Your task to perform on an android device: Go to internet settings Image 0: 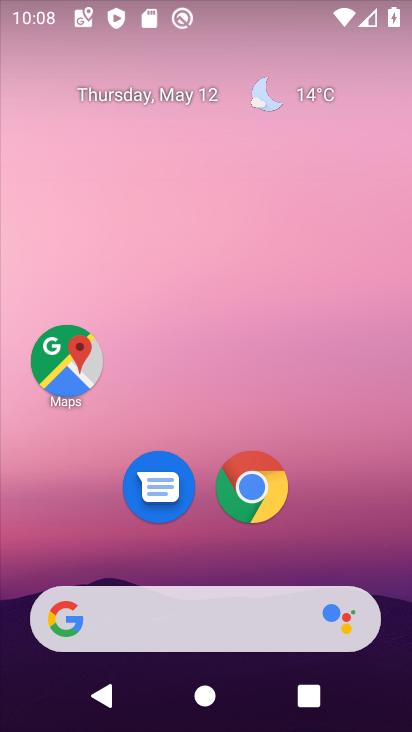
Step 0: drag from (63, 526) to (206, 200)
Your task to perform on an android device: Go to internet settings Image 1: 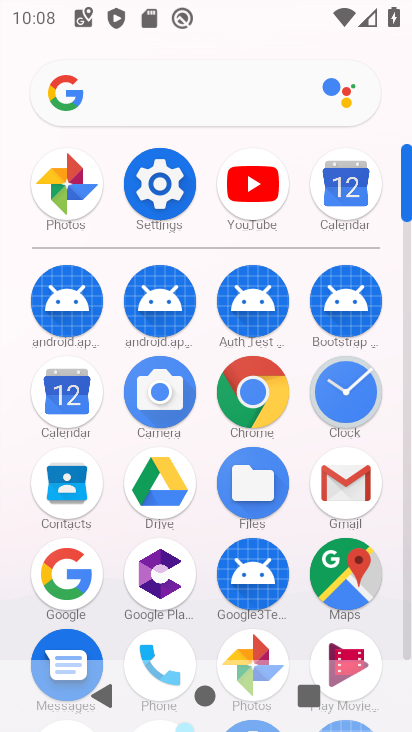
Step 1: click (169, 187)
Your task to perform on an android device: Go to internet settings Image 2: 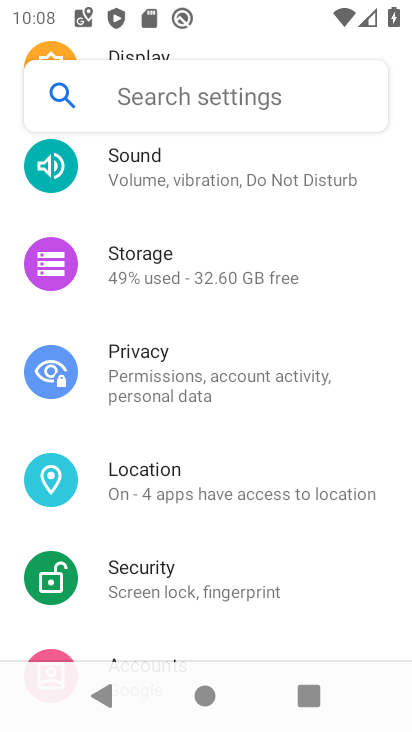
Step 2: drag from (171, 188) to (128, 619)
Your task to perform on an android device: Go to internet settings Image 3: 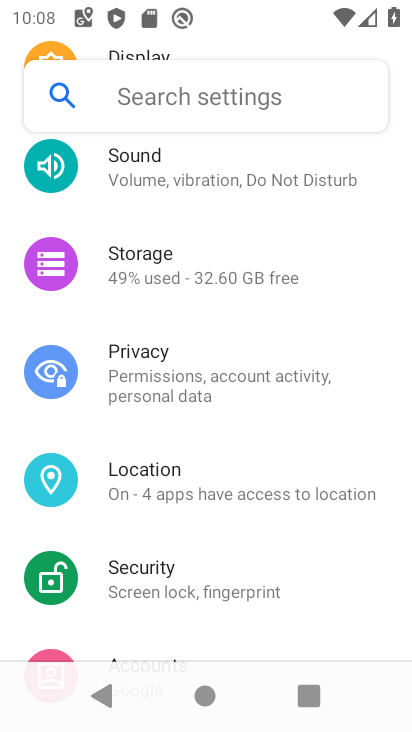
Step 3: drag from (232, 206) to (206, 516)
Your task to perform on an android device: Go to internet settings Image 4: 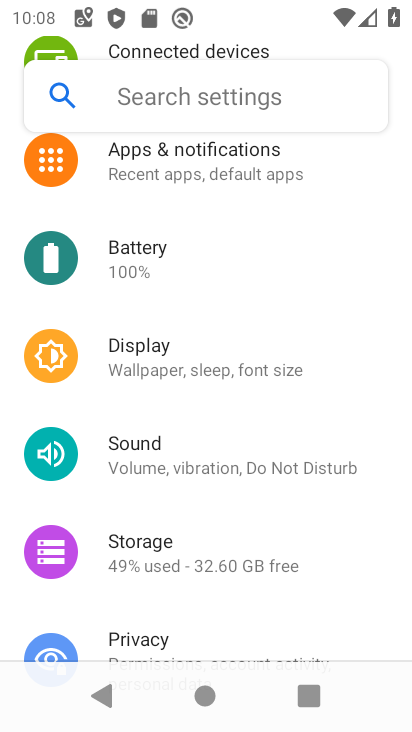
Step 4: drag from (186, 125) to (155, 592)
Your task to perform on an android device: Go to internet settings Image 5: 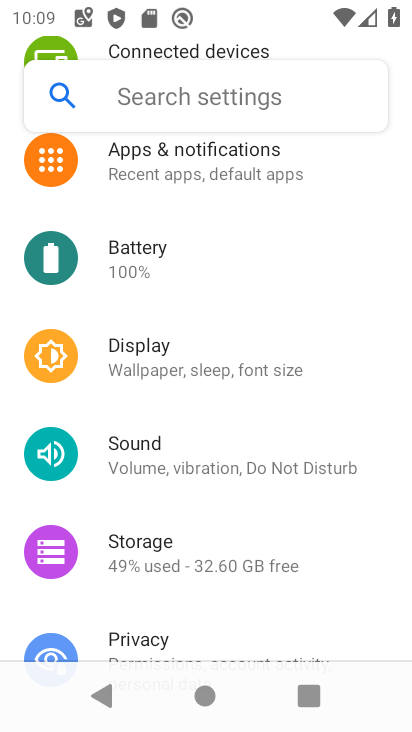
Step 5: drag from (203, 180) to (189, 555)
Your task to perform on an android device: Go to internet settings Image 6: 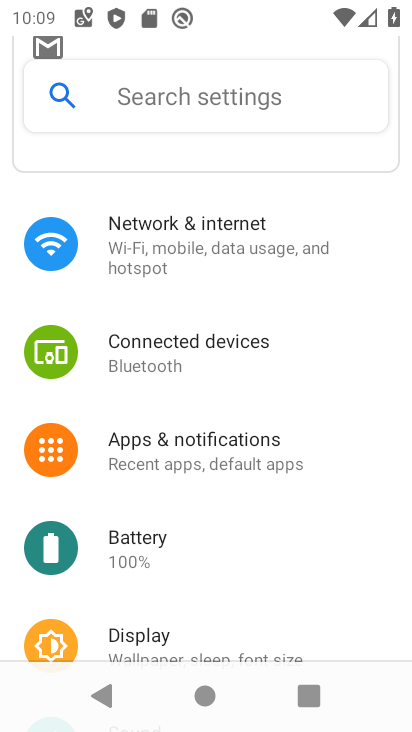
Step 6: click (244, 232)
Your task to perform on an android device: Go to internet settings Image 7: 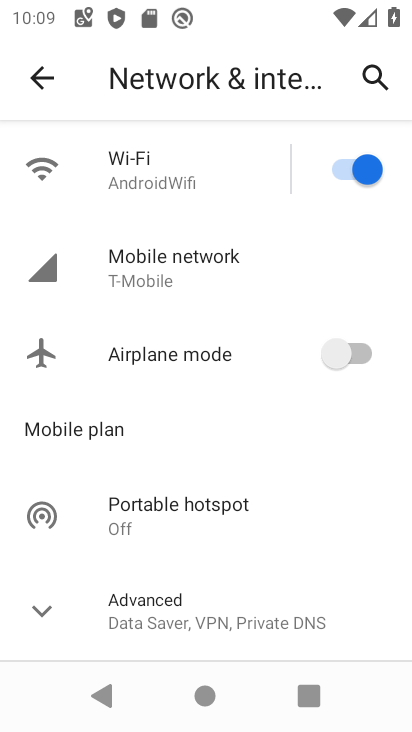
Step 7: click (236, 264)
Your task to perform on an android device: Go to internet settings Image 8: 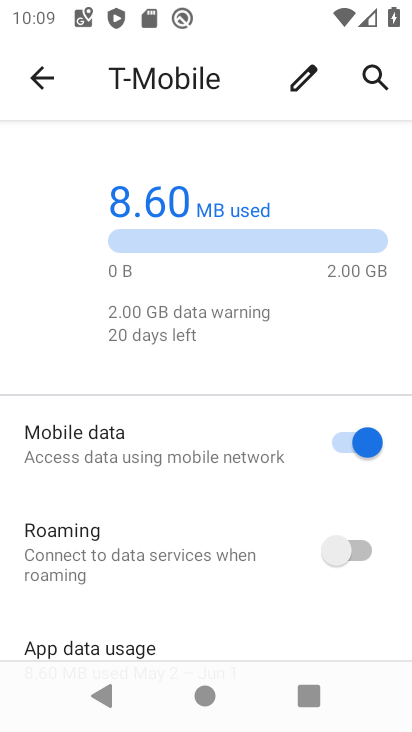
Step 8: task complete